Your task to perform on an android device: change text size in settings app Image 0: 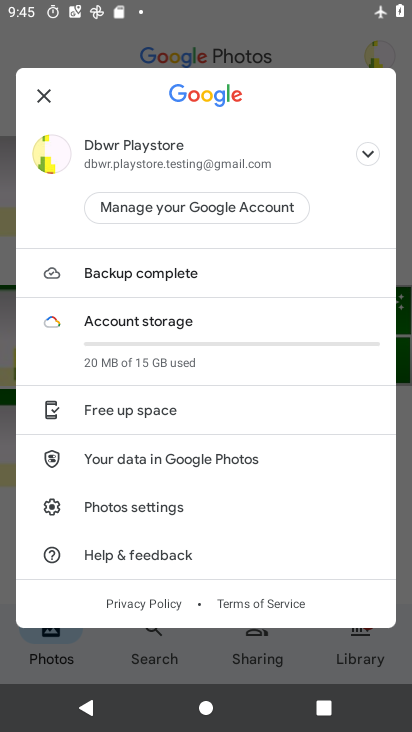
Step 0: press home button
Your task to perform on an android device: change text size in settings app Image 1: 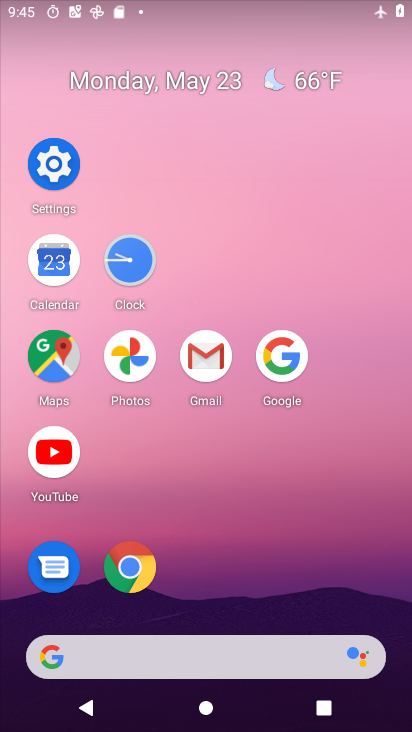
Step 1: click (75, 177)
Your task to perform on an android device: change text size in settings app Image 2: 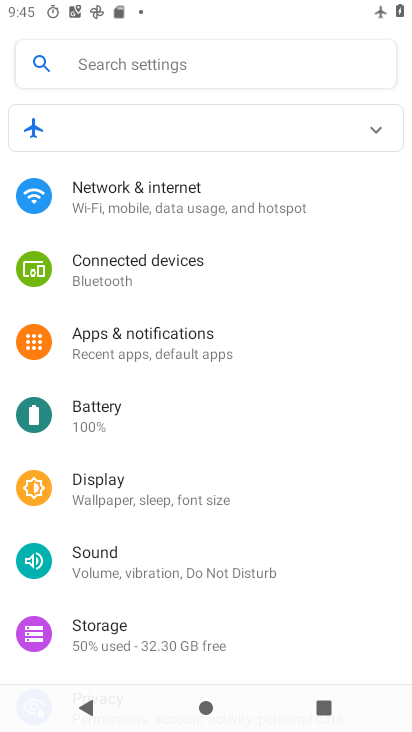
Step 2: click (231, 215)
Your task to perform on an android device: change text size in settings app Image 3: 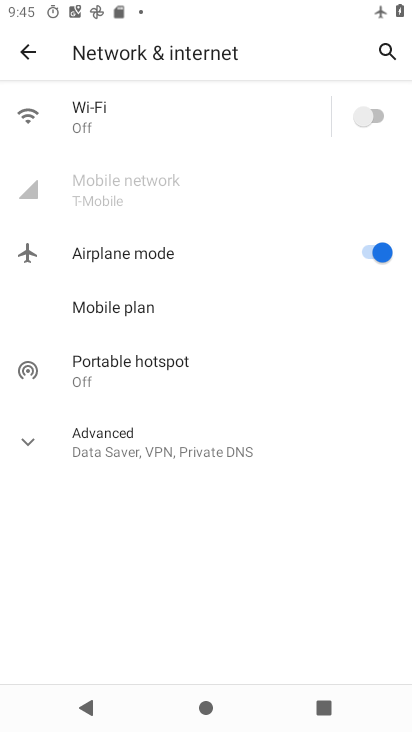
Step 3: click (363, 114)
Your task to perform on an android device: change text size in settings app Image 4: 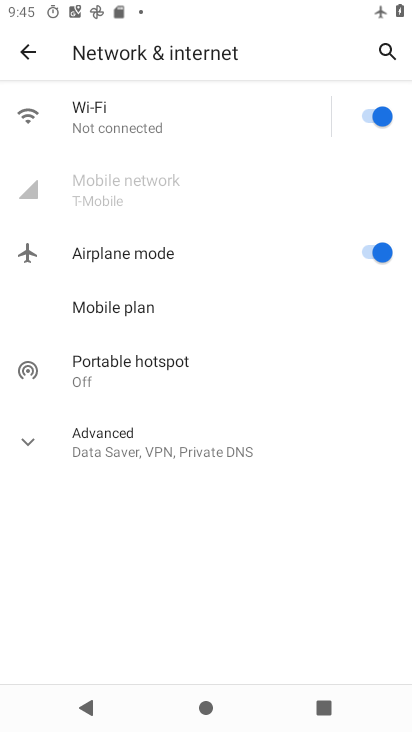
Step 4: click (373, 240)
Your task to perform on an android device: change text size in settings app Image 5: 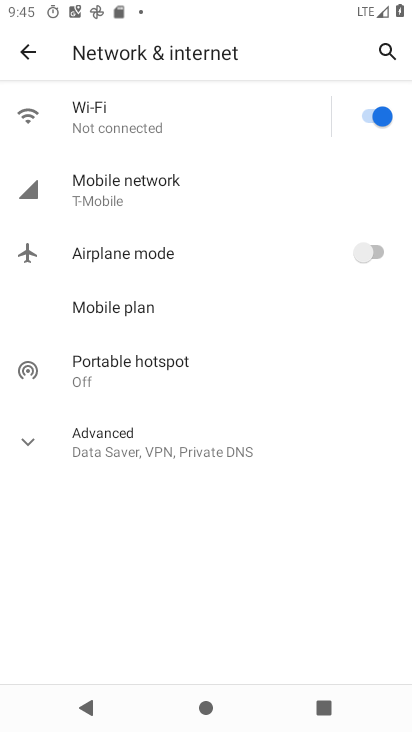
Step 5: press home button
Your task to perform on an android device: change text size in settings app Image 6: 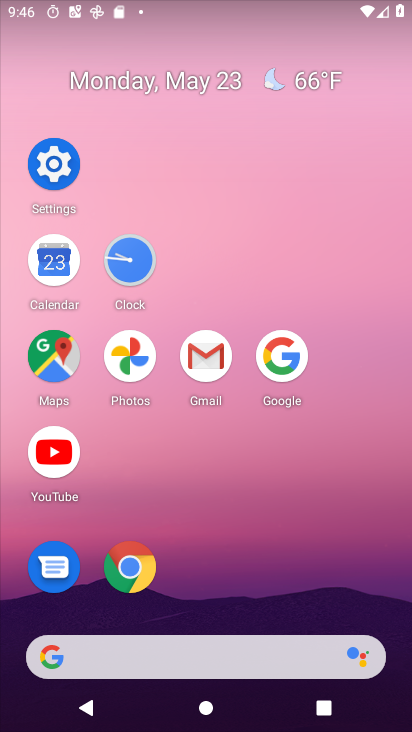
Step 6: click (60, 165)
Your task to perform on an android device: change text size in settings app Image 7: 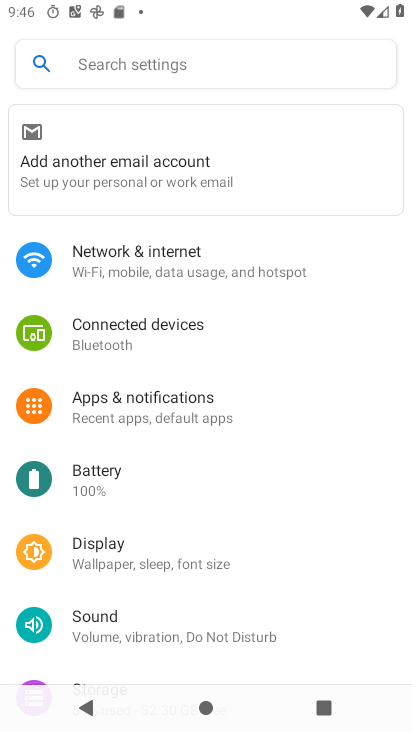
Step 7: drag from (296, 549) to (267, 477)
Your task to perform on an android device: change text size in settings app Image 8: 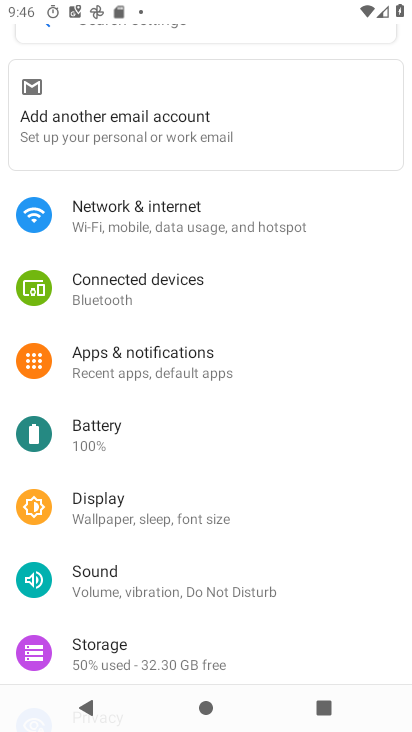
Step 8: click (214, 500)
Your task to perform on an android device: change text size in settings app Image 9: 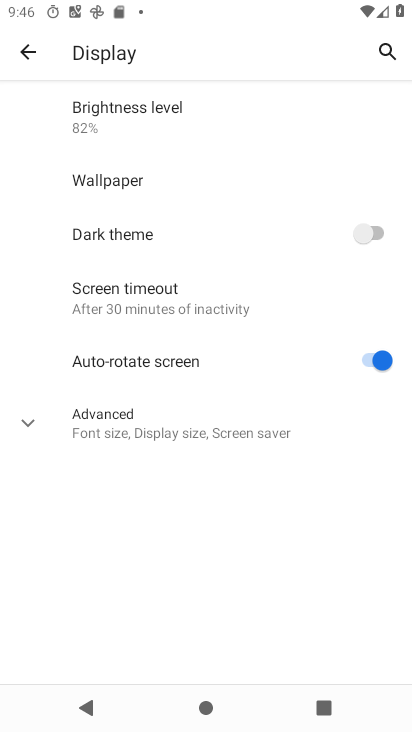
Step 9: click (209, 429)
Your task to perform on an android device: change text size in settings app Image 10: 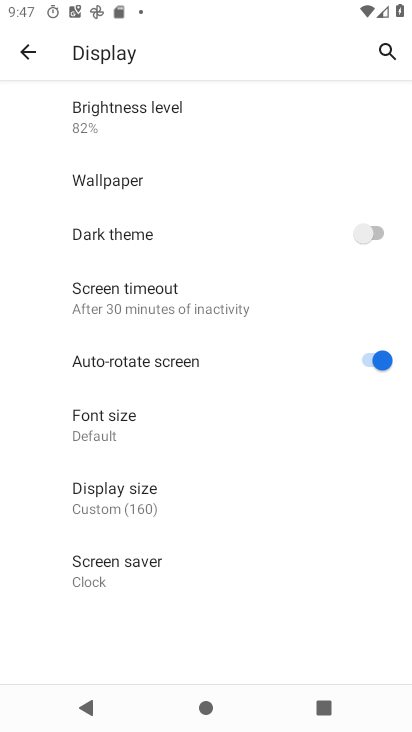
Step 10: click (186, 443)
Your task to perform on an android device: change text size in settings app Image 11: 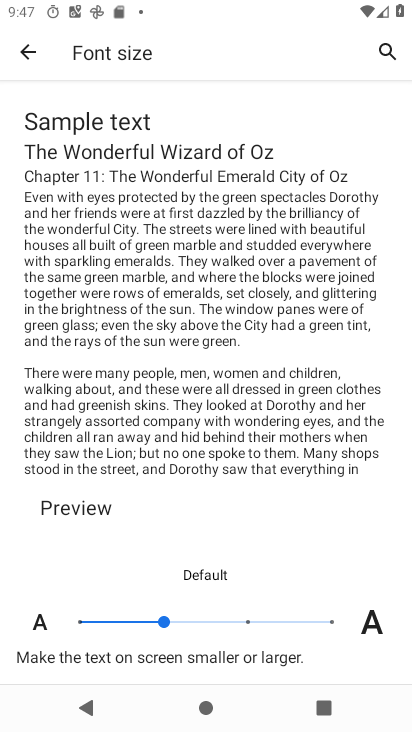
Step 11: click (252, 615)
Your task to perform on an android device: change text size in settings app Image 12: 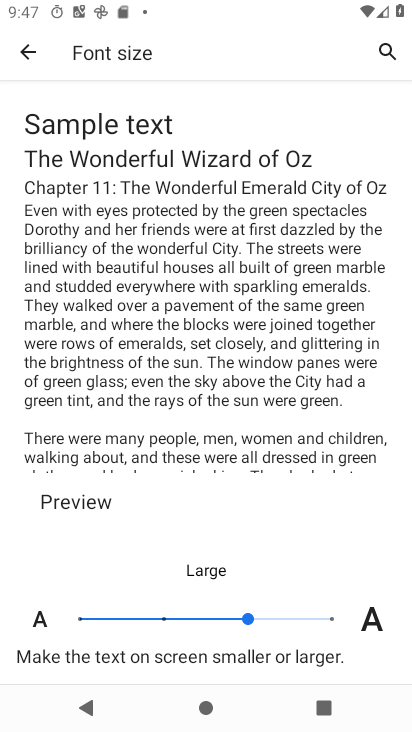
Step 12: task complete